Your task to perform on an android device: What's the top post on reddit right now? Image 0: 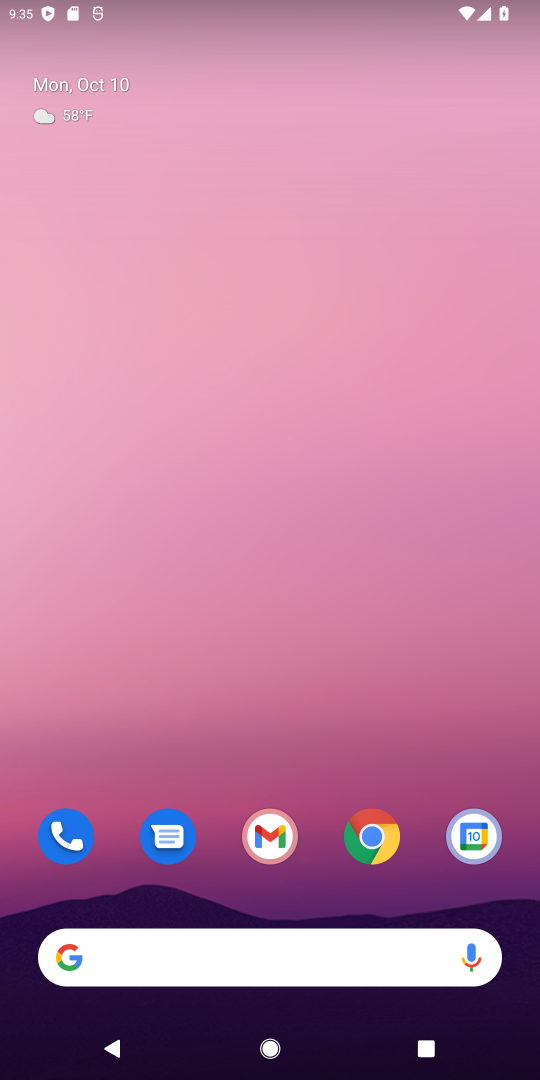
Step 0: drag from (264, 911) to (381, 138)
Your task to perform on an android device: What's the top post on reddit right now? Image 1: 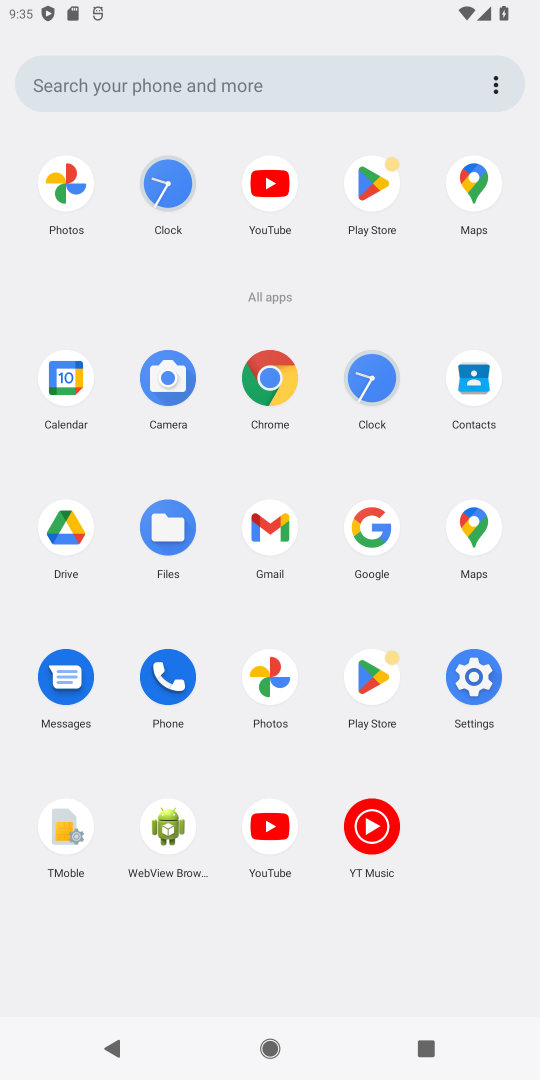
Step 1: click (369, 526)
Your task to perform on an android device: What's the top post on reddit right now? Image 2: 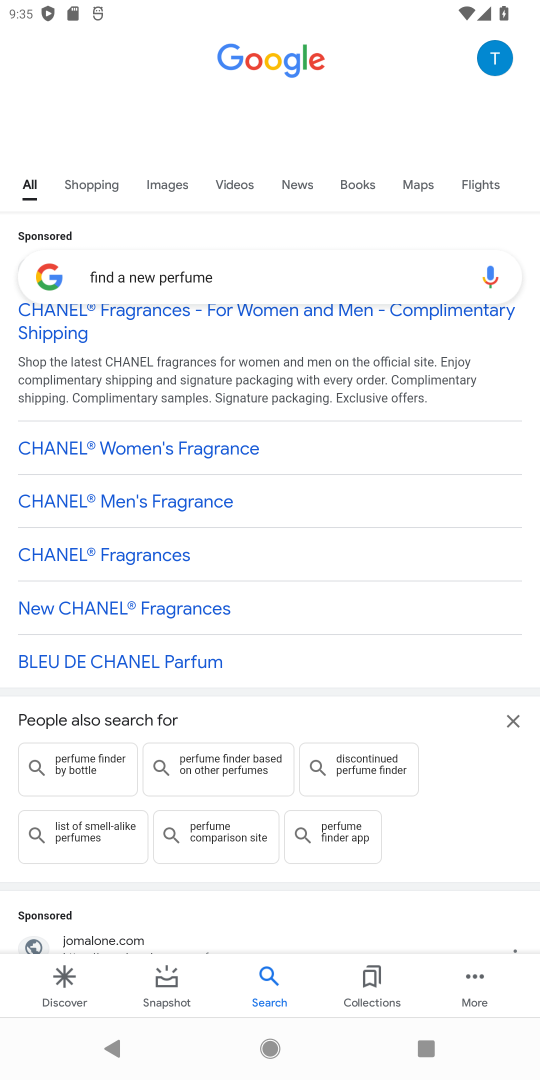
Step 2: click (178, 283)
Your task to perform on an android device: What's the top post on reddit right now? Image 3: 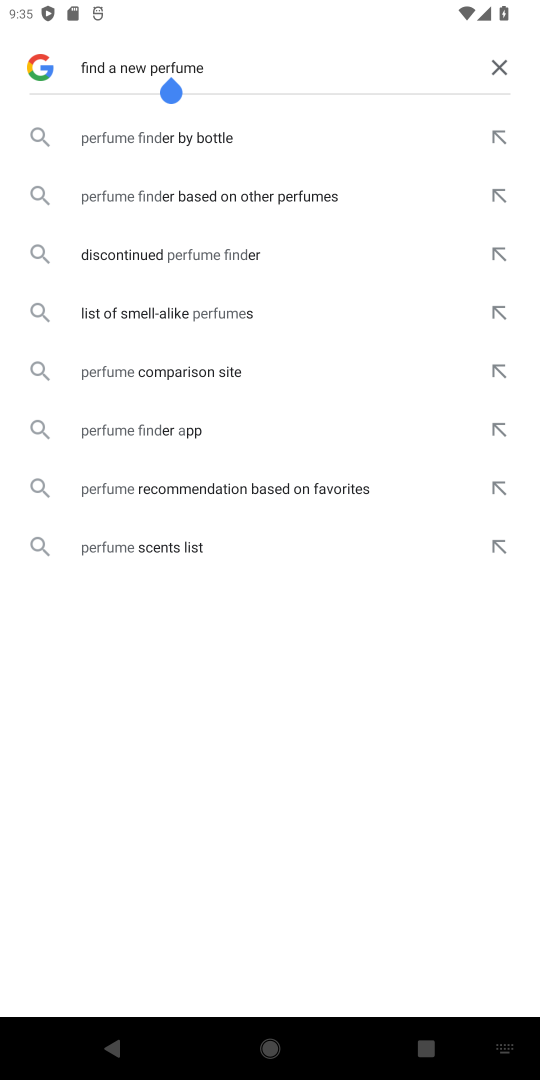
Step 3: click (490, 70)
Your task to perform on an android device: What's the top post on reddit right now? Image 4: 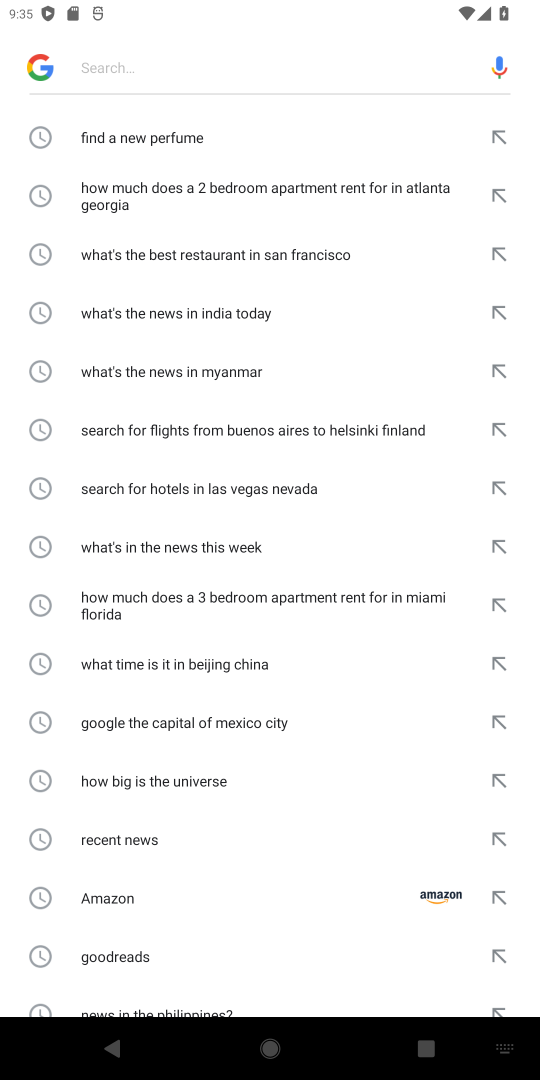
Step 4: type "What's the top post on reddit right now?"
Your task to perform on an android device: What's the top post on reddit right now? Image 5: 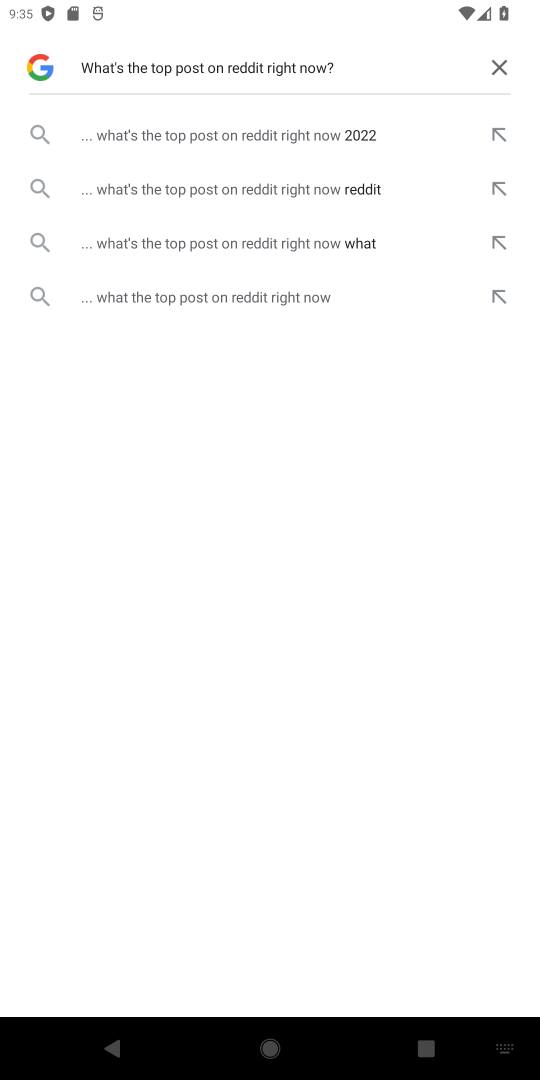
Step 5: click (301, 137)
Your task to perform on an android device: What's the top post on reddit right now? Image 6: 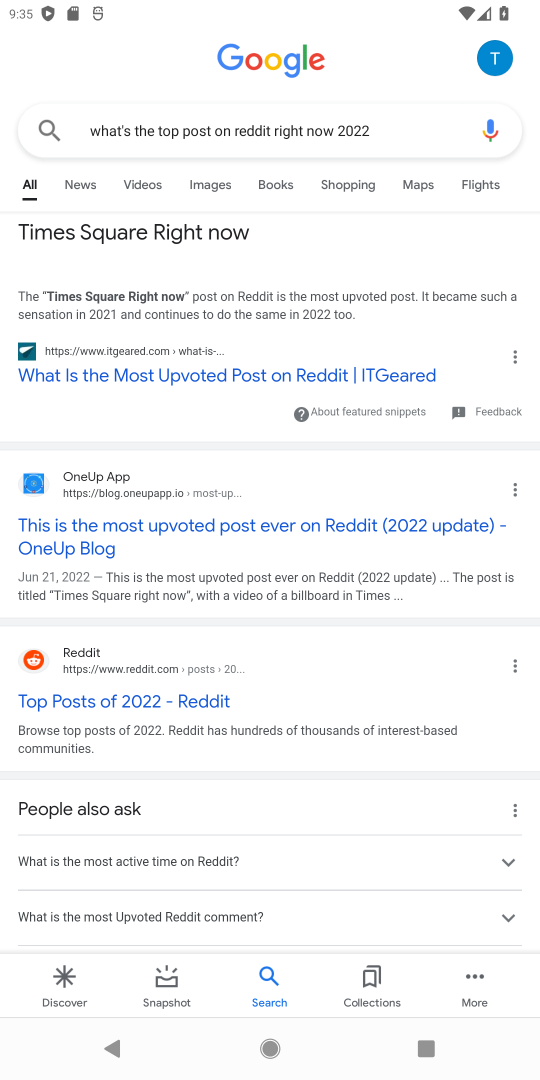
Step 6: task complete